Your task to perform on an android device: show emergency info Image 0: 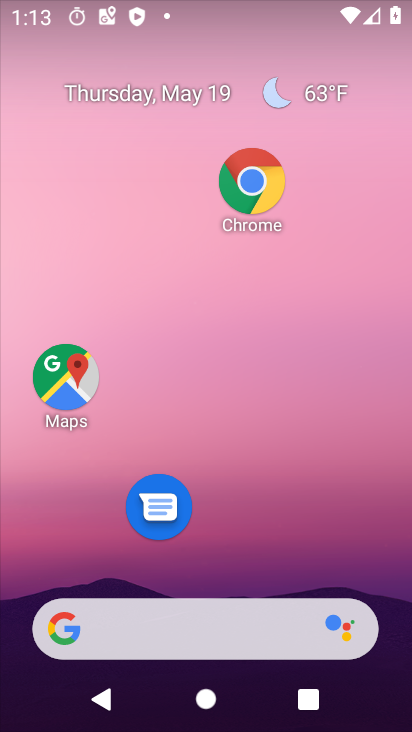
Step 0: drag from (229, 560) to (287, 3)
Your task to perform on an android device: show emergency info Image 1: 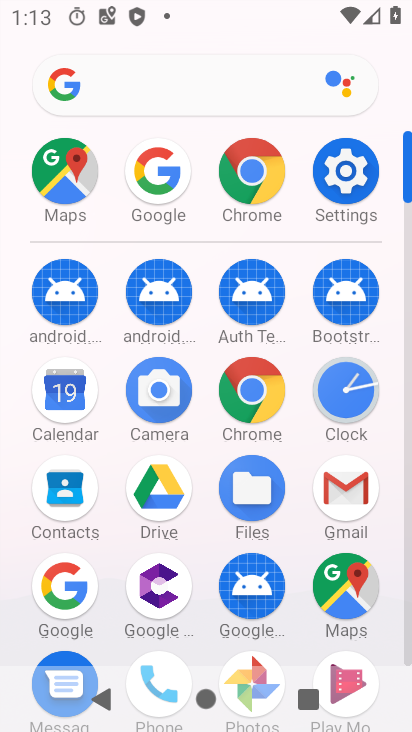
Step 1: click (342, 187)
Your task to perform on an android device: show emergency info Image 2: 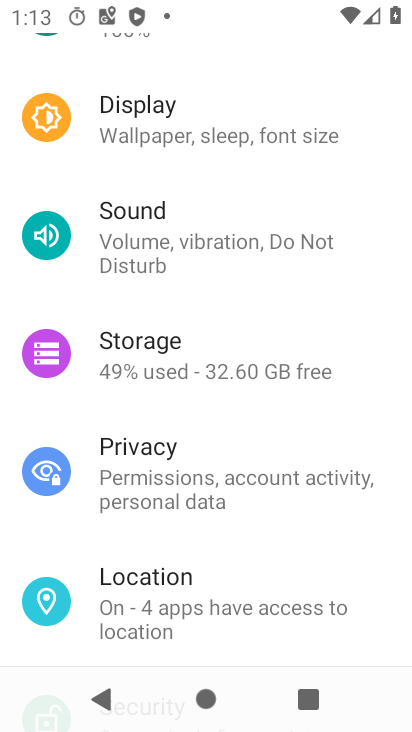
Step 2: drag from (172, 603) to (236, 213)
Your task to perform on an android device: show emergency info Image 3: 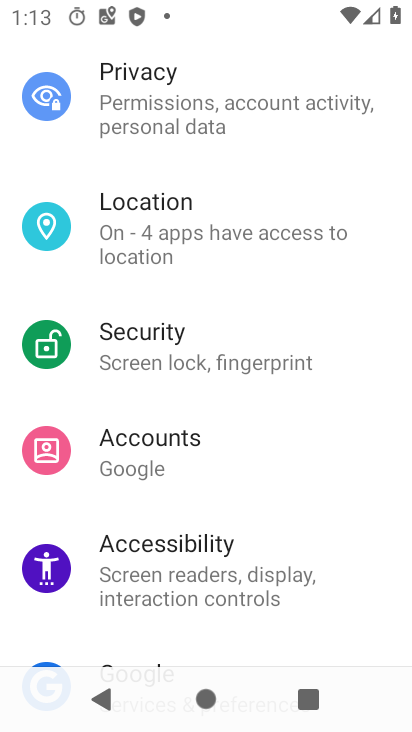
Step 3: click (273, 202)
Your task to perform on an android device: show emergency info Image 4: 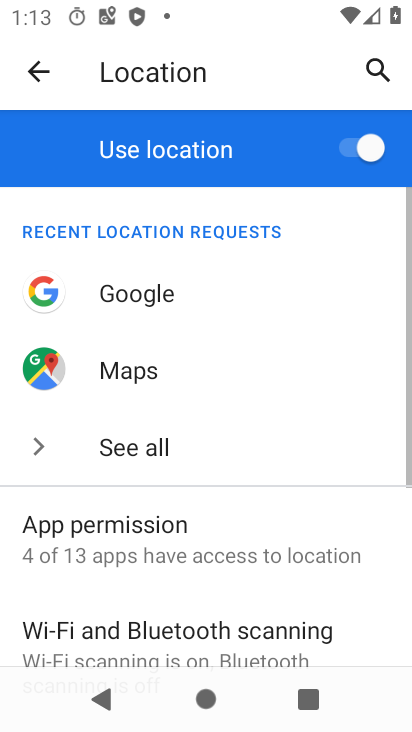
Step 4: click (31, 71)
Your task to perform on an android device: show emergency info Image 5: 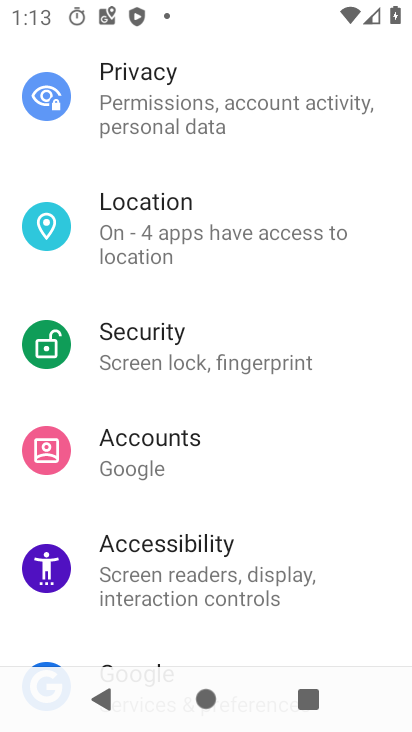
Step 5: drag from (148, 559) to (225, 199)
Your task to perform on an android device: show emergency info Image 6: 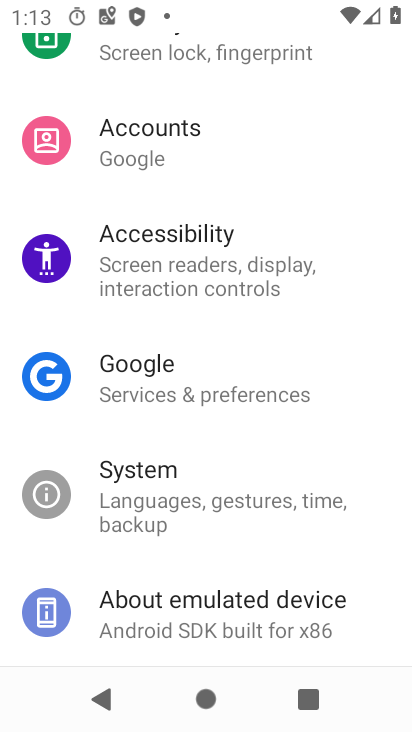
Step 6: click (144, 628)
Your task to perform on an android device: show emergency info Image 7: 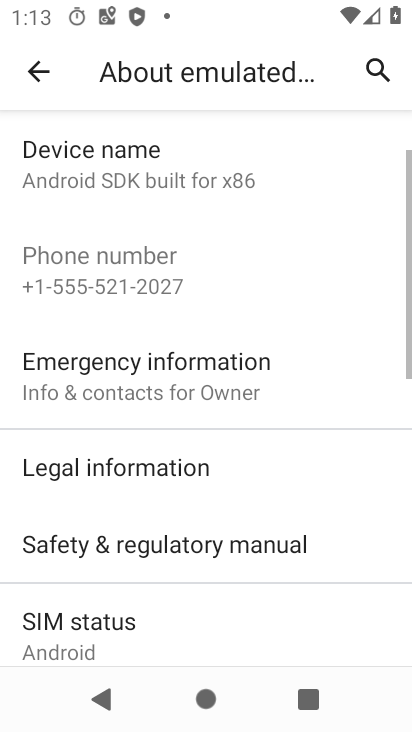
Step 7: task complete